Your task to perform on an android device: turn on data saver in the chrome app Image 0: 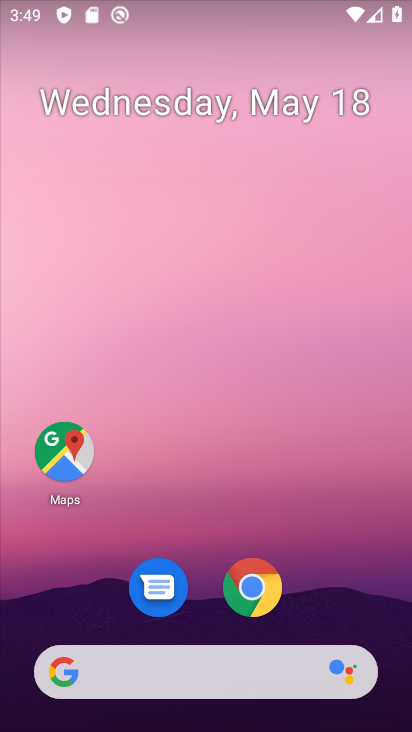
Step 0: click (268, 584)
Your task to perform on an android device: turn on data saver in the chrome app Image 1: 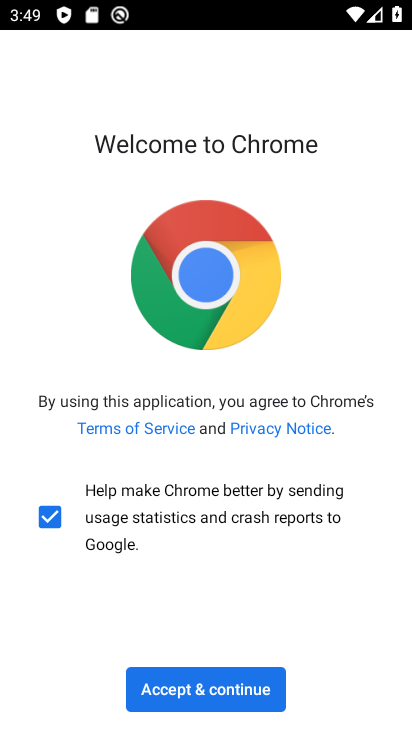
Step 1: click (245, 696)
Your task to perform on an android device: turn on data saver in the chrome app Image 2: 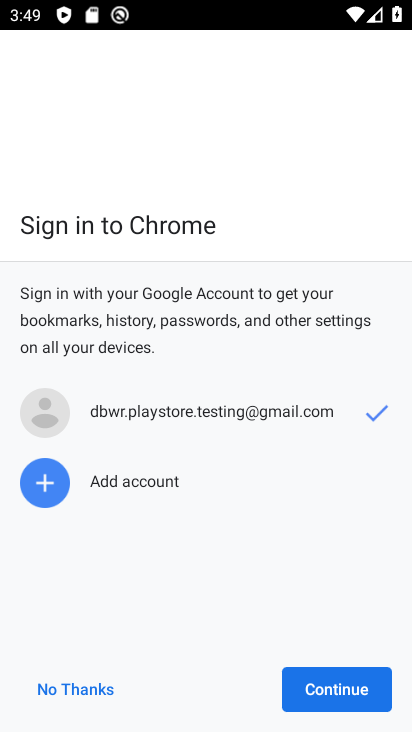
Step 2: click (373, 669)
Your task to perform on an android device: turn on data saver in the chrome app Image 3: 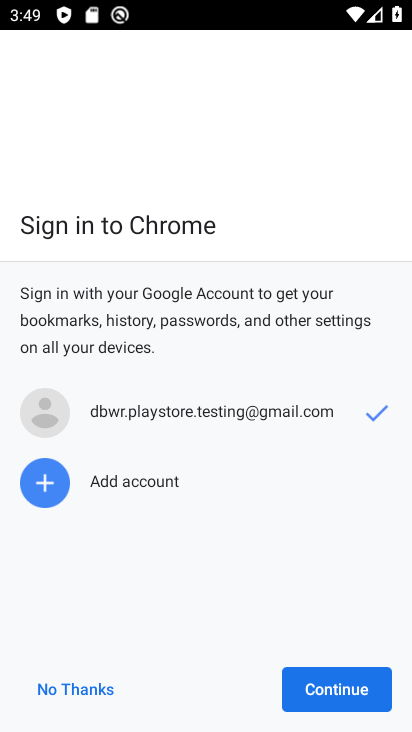
Step 3: click (372, 670)
Your task to perform on an android device: turn on data saver in the chrome app Image 4: 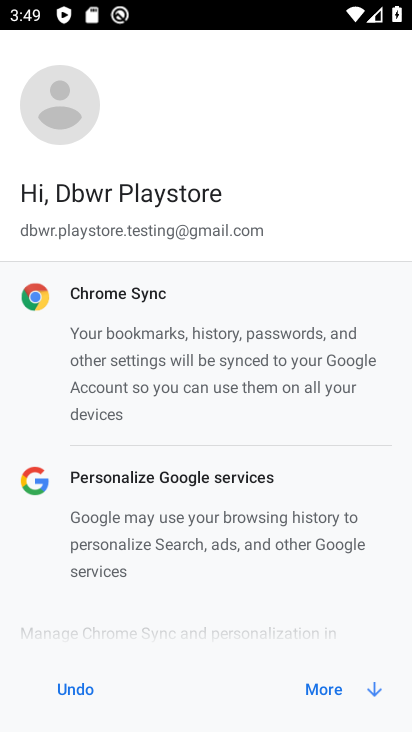
Step 4: click (372, 670)
Your task to perform on an android device: turn on data saver in the chrome app Image 5: 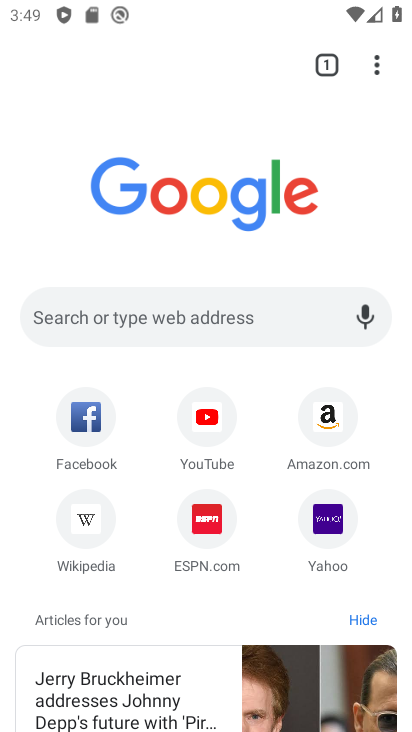
Step 5: click (382, 60)
Your task to perform on an android device: turn on data saver in the chrome app Image 6: 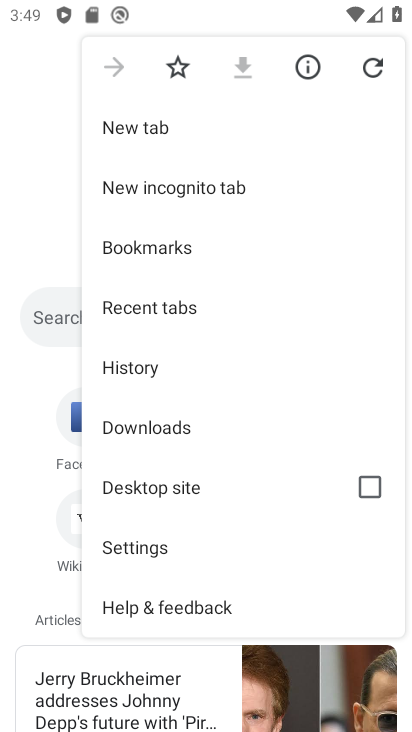
Step 6: click (190, 556)
Your task to perform on an android device: turn on data saver in the chrome app Image 7: 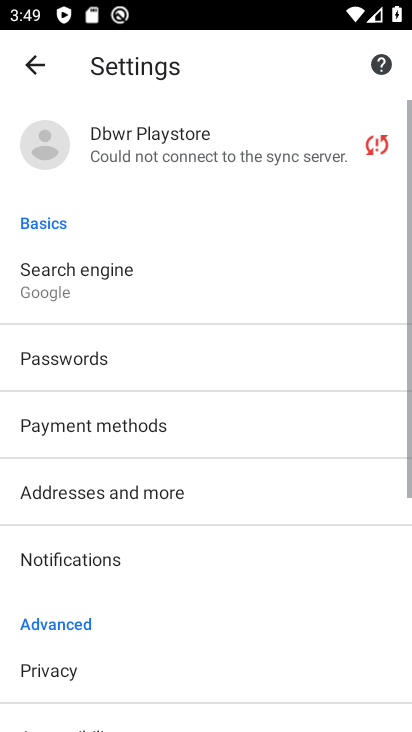
Step 7: drag from (171, 434) to (154, 179)
Your task to perform on an android device: turn on data saver in the chrome app Image 8: 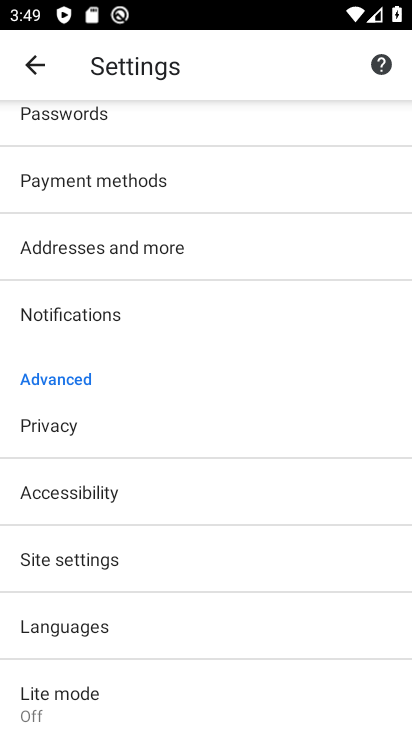
Step 8: click (158, 683)
Your task to perform on an android device: turn on data saver in the chrome app Image 9: 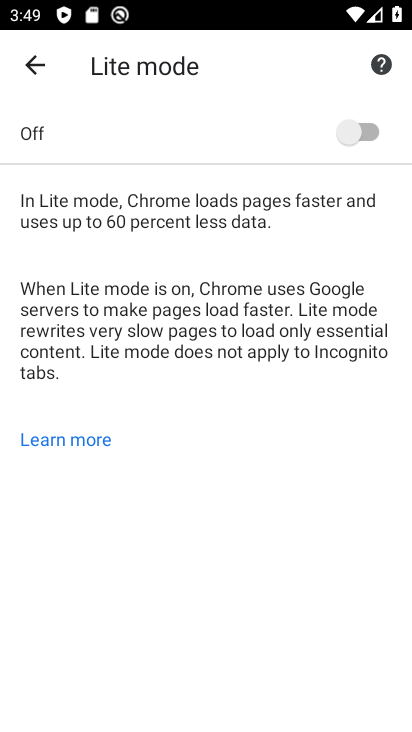
Step 9: click (366, 125)
Your task to perform on an android device: turn on data saver in the chrome app Image 10: 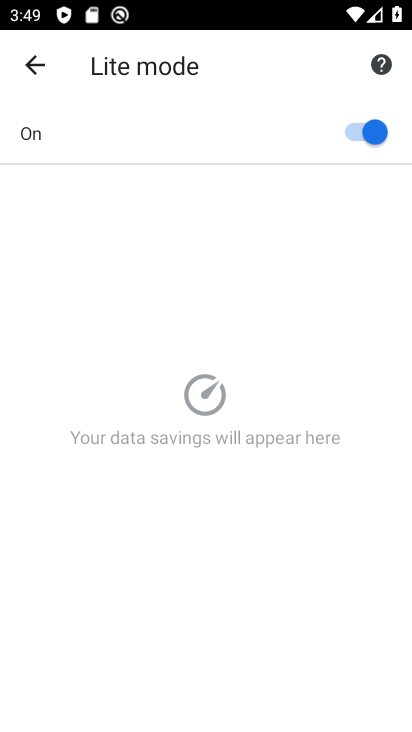
Step 10: task complete